Your task to perform on an android device: Open Maps and search for coffee Image 0: 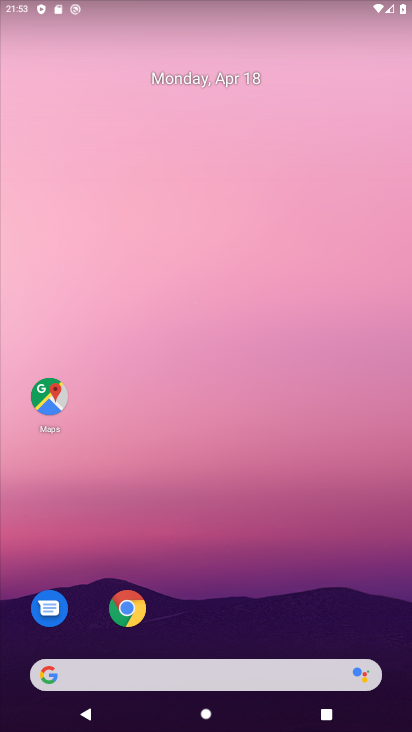
Step 0: click (47, 398)
Your task to perform on an android device: Open Maps and search for coffee Image 1: 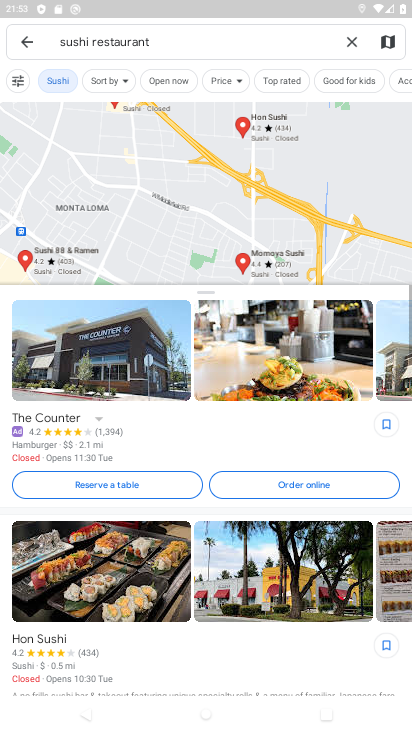
Step 1: click (348, 43)
Your task to perform on an android device: Open Maps and search for coffee Image 2: 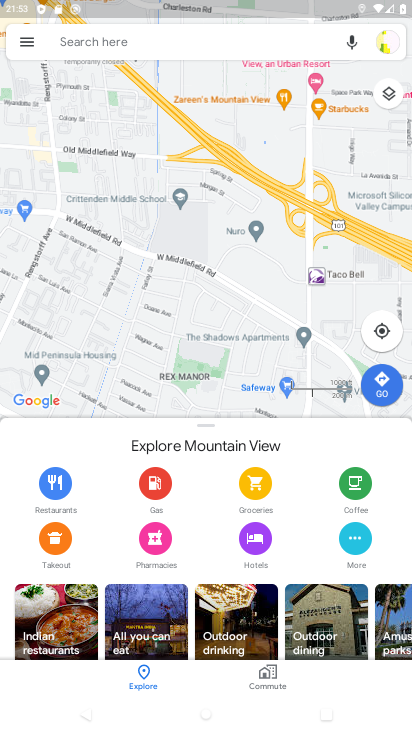
Step 2: click (198, 46)
Your task to perform on an android device: Open Maps and search for coffee Image 3: 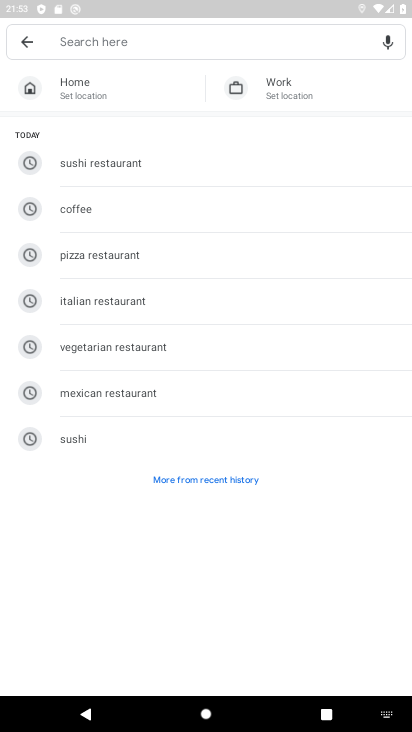
Step 3: click (148, 214)
Your task to perform on an android device: Open Maps and search for coffee Image 4: 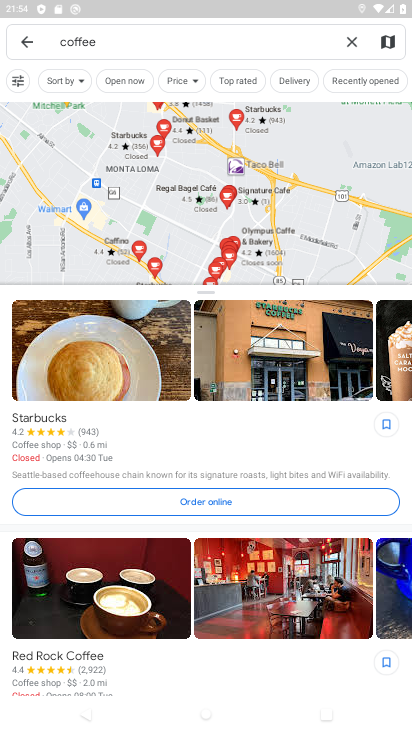
Step 4: task complete